Your task to perform on an android device: add a contact in the contacts app Image 0: 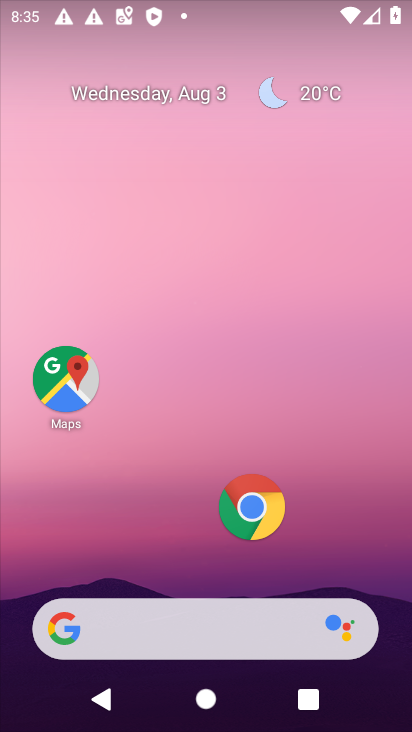
Step 0: drag from (156, 464) to (201, 125)
Your task to perform on an android device: add a contact in the contacts app Image 1: 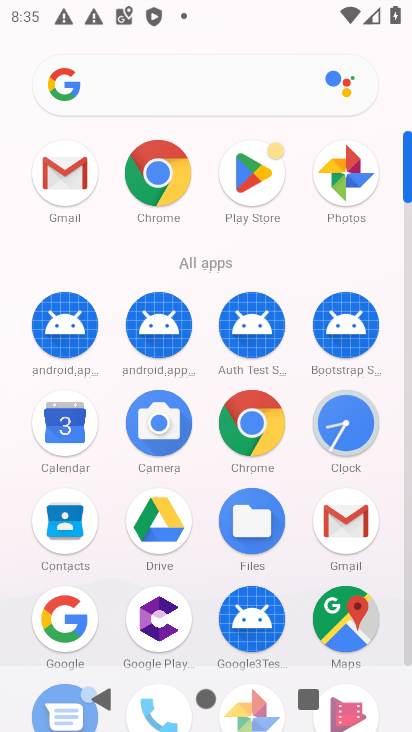
Step 1: click (64, 515)
Your task to perform on an android device: add a contact in the contacts app Image 2: 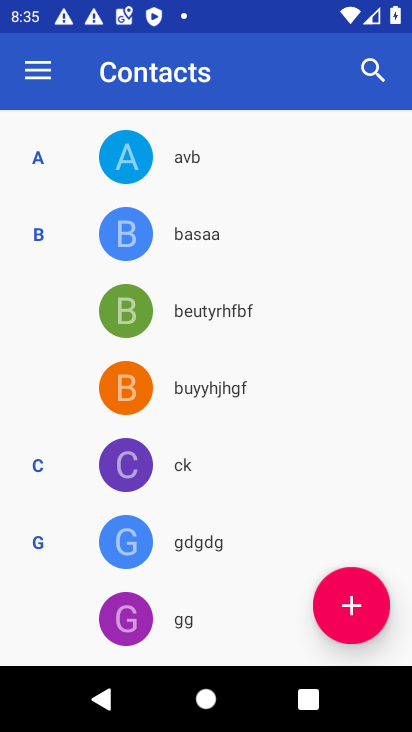
Step 2: click (353, 605)
Your task to perform on an android device: add a contact in the contacts app Image 3: 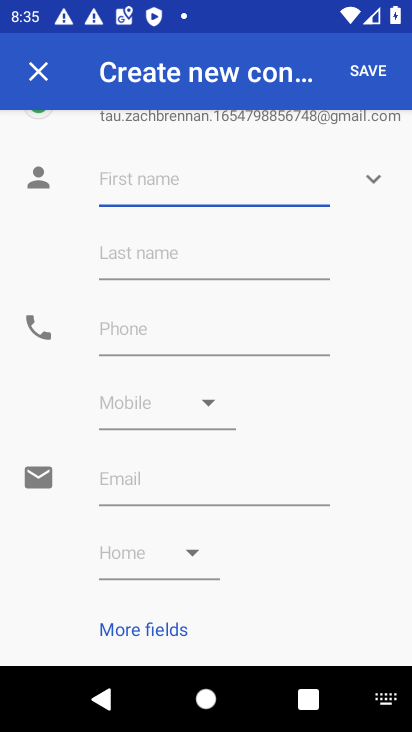
Step 3: type "Noor"
Your task to perform on an android device: add a contact in the contacts app Image 4: 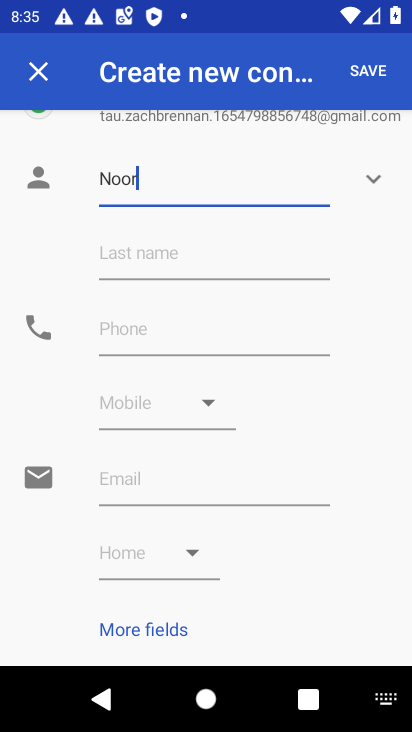
Step 4: click (155, 254)
Your task to perform on an android device: add a contact in the contacts app Image 5: 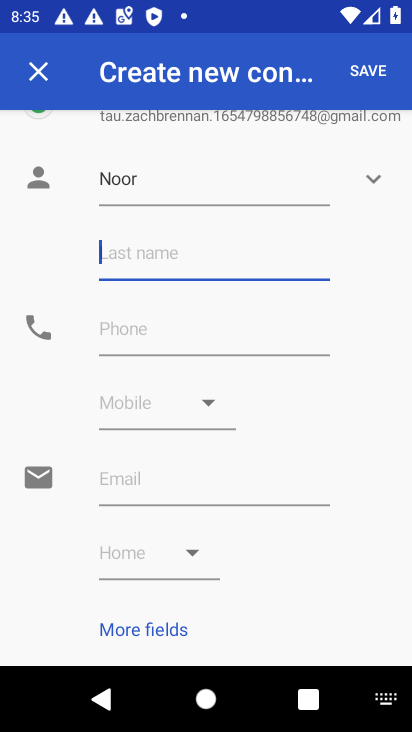
Step 5: type "Ahmad"
Your task to perform on an android device: add a contact in the contacts app Image 6: 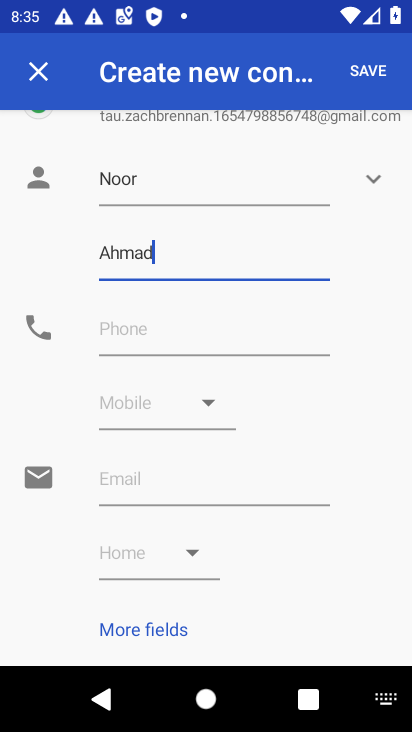
Step 6: click (100, 344)
Your task to perform on an android device: add a contact in the contacts app Image 7: 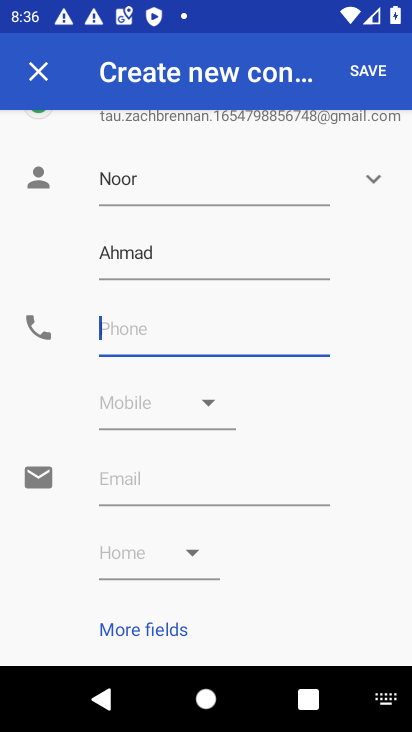
Step 7: type "011-90099099"
Your task to perform on an android device: add a contact in the contacts app Image 8: 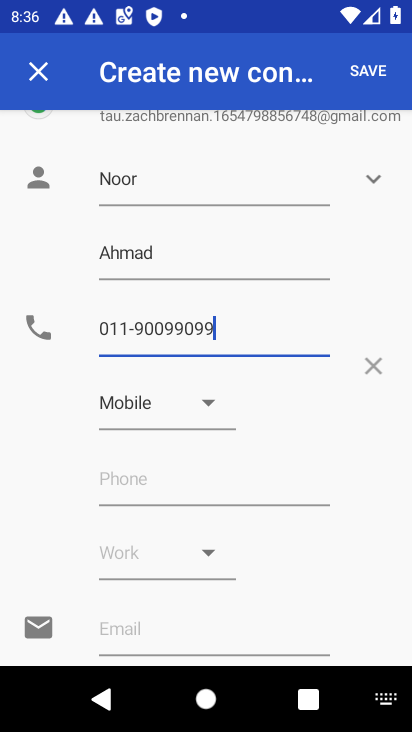
Step 8: click (362, 75)
Your task to perform on an android device: add a contact in the contacts app Image 9: 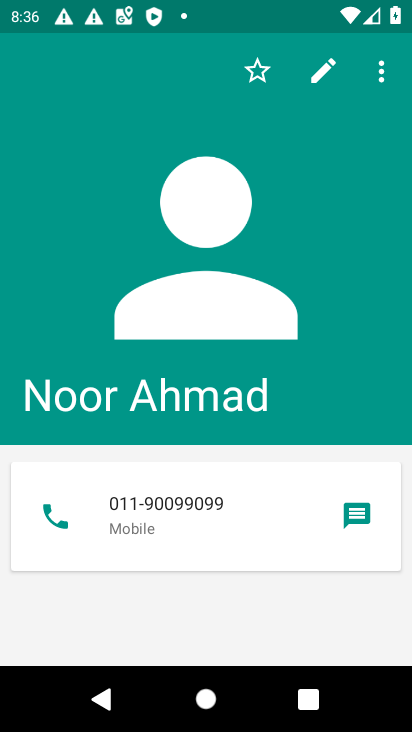
Step 9: task complete